Your task to perform on an android device: turn notification dots on Image 0: 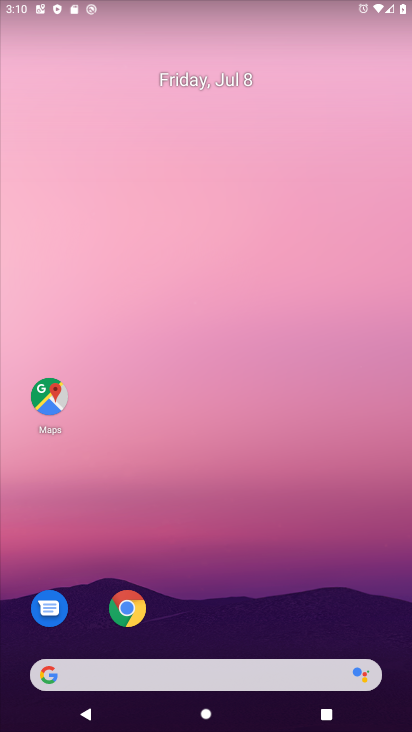
Step 0: drag from (288, 678) to (305, 5)
Your task to perform on an android device: turn notification dots on Image 1: 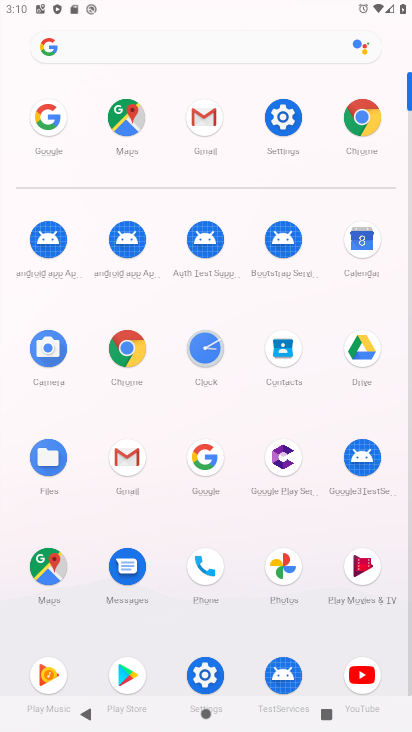
Step 1: click (293, 109)
Your task to perform on an android device: turn notification dots on Image 2: 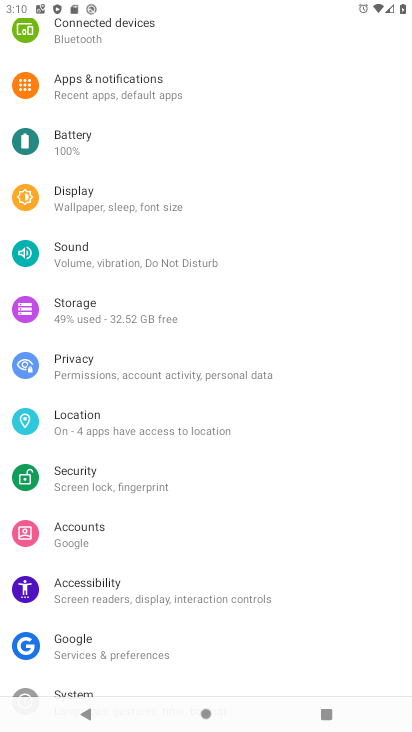
Step 2: click (115, 84)
Your task to perform on an android device: turn notification dots on Image 3: 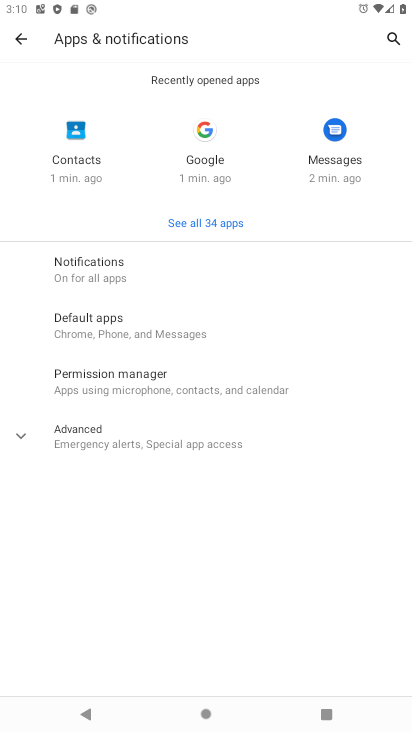
Step 3: click (128, 273)
Your task to perform on an android device: turn notification dots on Image 4: 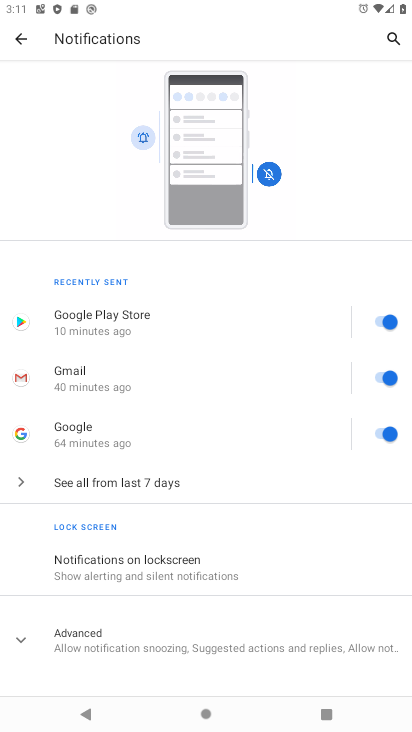
Step 4: click (130, 641)
Your task to perform on an android device: turn notification dots on Image 5: 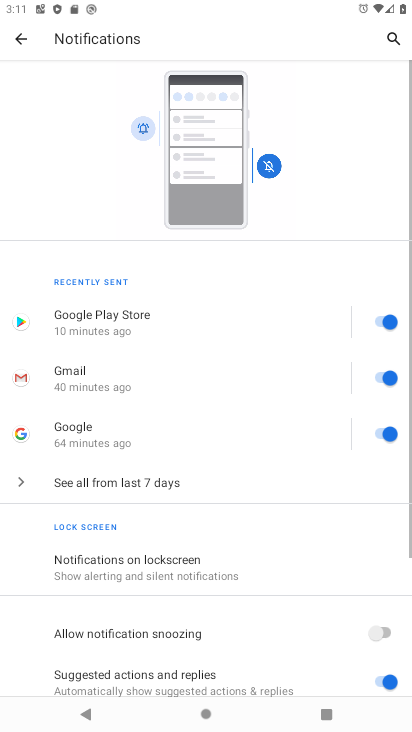
Step 5: drag from (168, 655) to (249, 245)
Your task to perform on an android device: turn notification dots on Image 6: 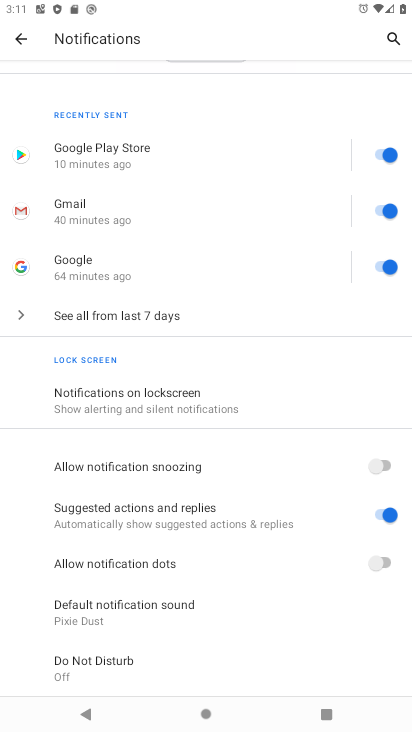
Step 6: click (391, 562)
Your task to perform on an android device: turn notification dots on Image 7: 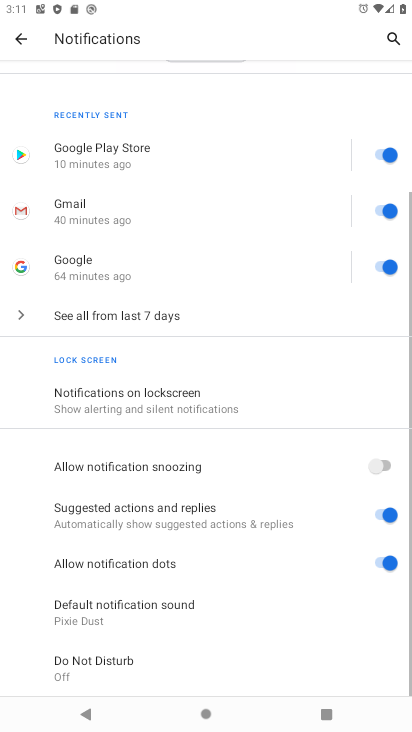
Step 7: task complete